Your task to perform on an android device: set the timer Image 0: 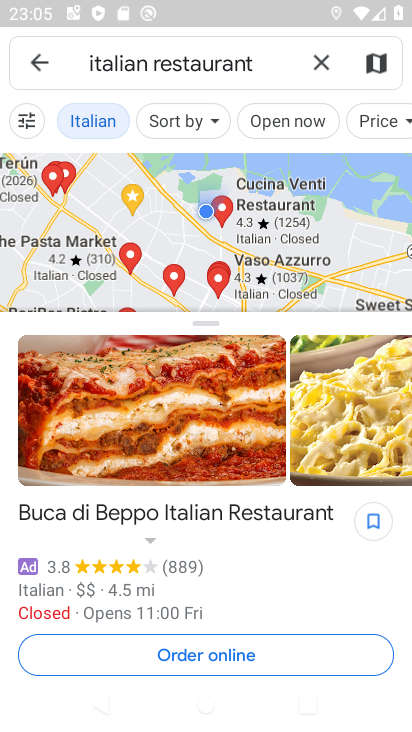
Step 0: press home button
Your task to perform on an android device: set the timer Image 1: 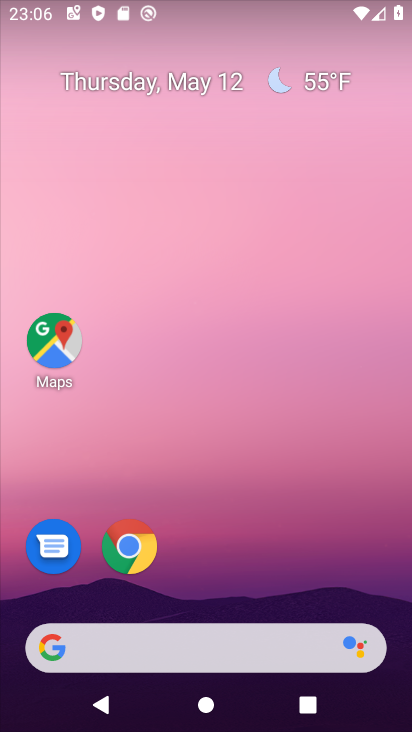
Step 1: drag from (157, 581) to (190, 168)
Your task to perform on an android device: set the timer Image 2: 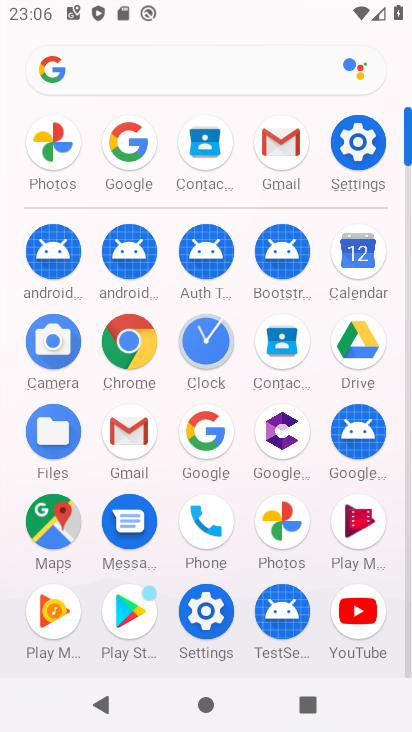
Step 2: click (213, 347)
Your task to perform on an android device: set the timer Image 3: 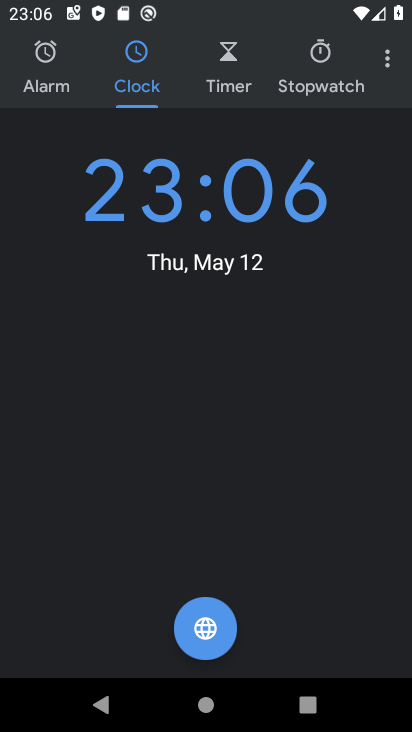
Step 3: click (244, 73)
Your task to perform on an android device: set the timer Image 4: 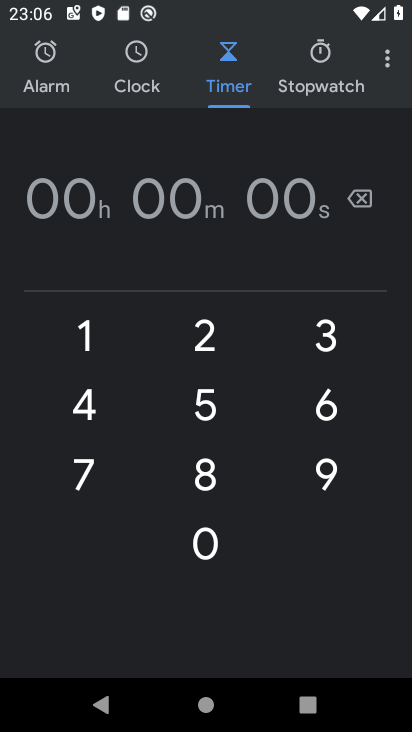
Step 4: click (91, 336)
Your task to perform on an android device: set the timer Image 5: 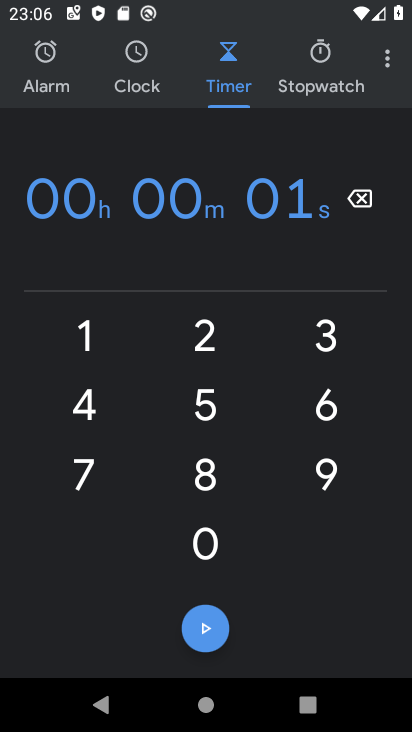
Step 5: click (226, 326)
Your task to perform on an android device: set the timer Image 6: 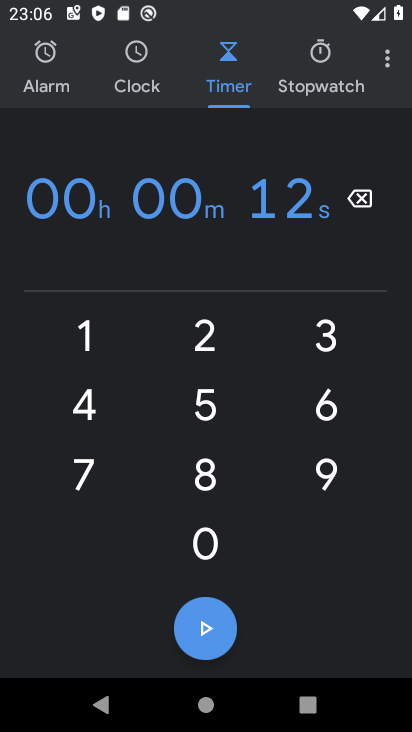
Step 6: task complete